Your task to perform on an android device: change the clock display to digital Image 0: 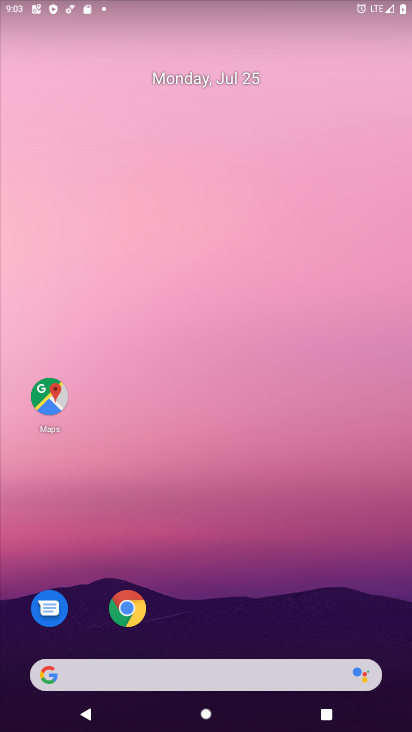
Step 0: drag from (226, 716) to (201, 163)
Your task to perform on an android device: change the clock display to digital Image 1: 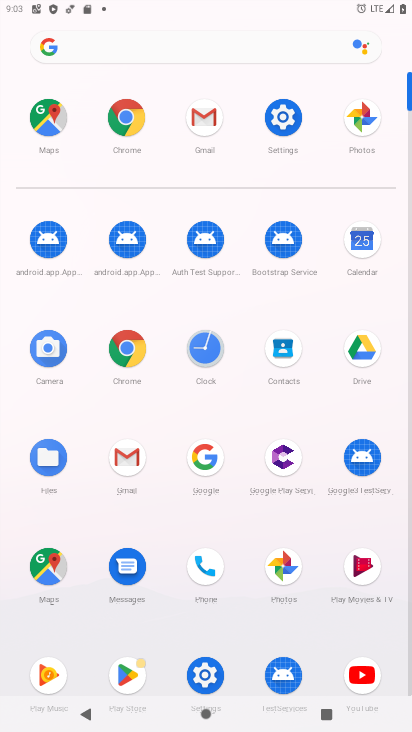
Step 1: click (205, 343)
Your task to perform on an android device: change the clock display to digital Image 2: 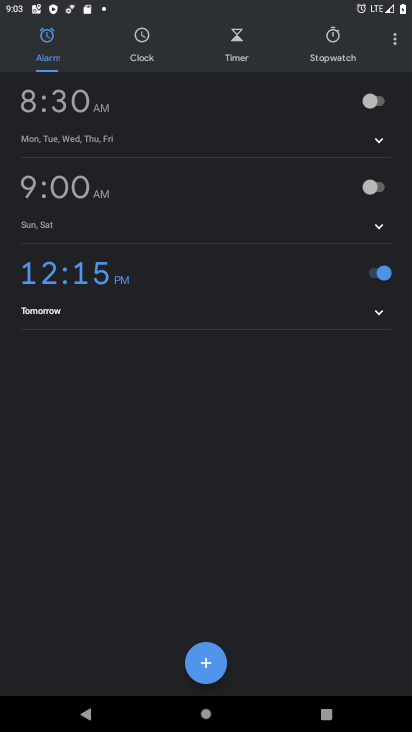
Step 2: click (395, 44)
Your task to perform on an android device: change the clock display to digital Image 3: 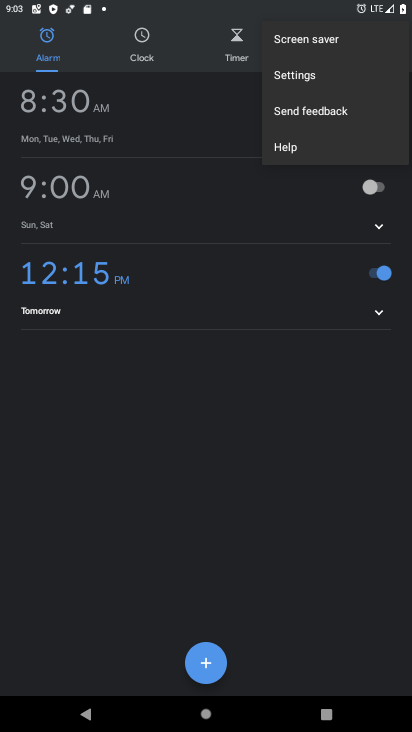
Step 3: click (309, 71)
Your task to perform on an android device: change the clock display to digital Image 4: 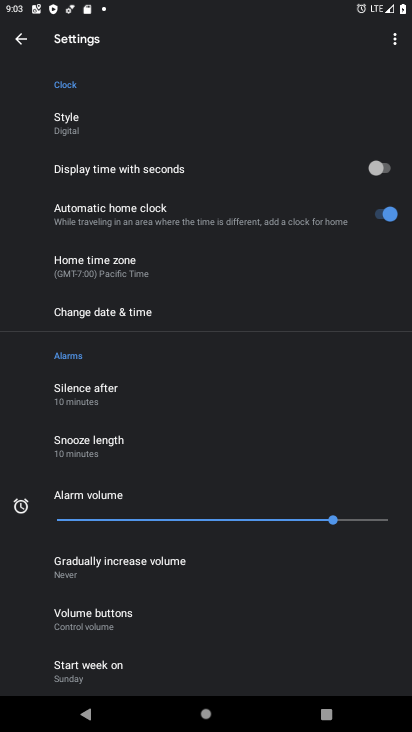
Step 4: task complete